Your task to perform on an android device: Go to Reddit.com Image 0: 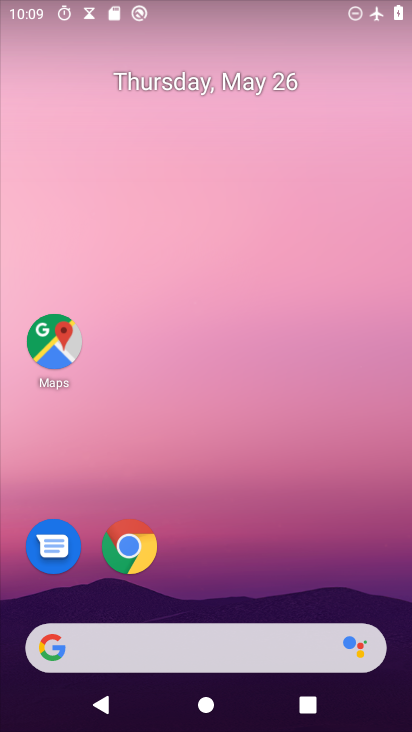
Step 0: drag from (348, 589) to (316, 123)
Your task to perform on an android device: Go to Reddit.com Image 1: 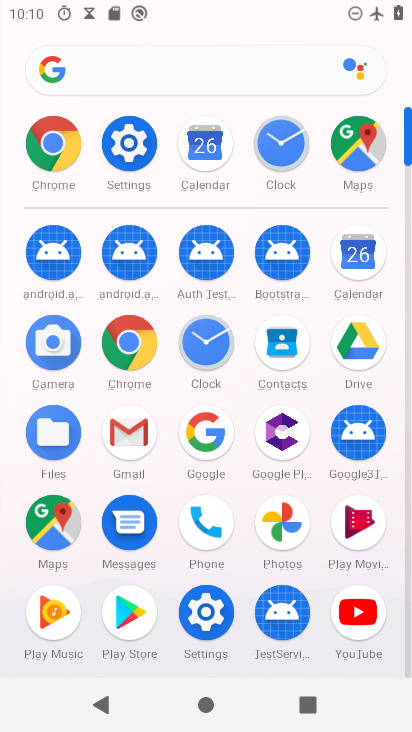
Step 1: click (122, 354)
Your task to perform on an android device: Go to Reddit.com Image 2: 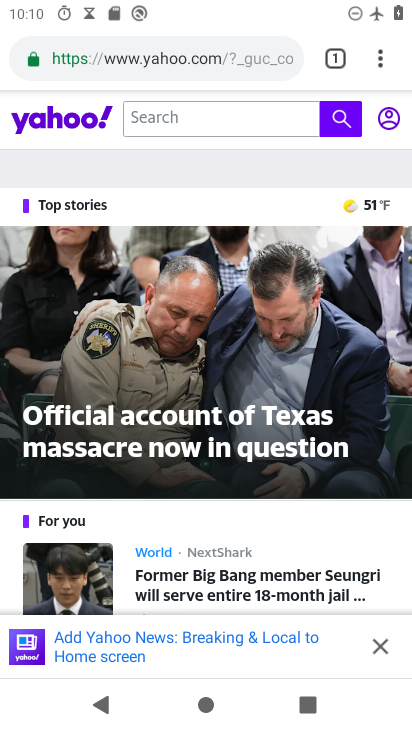
Step 2: click (163, 74)
Your task to perform on an android device: Go to Reddit.com Image 3: 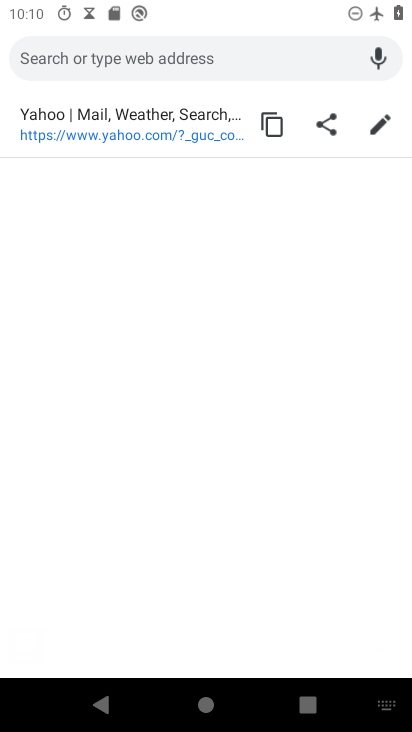
Step 3: type "reddit.com"
Your task to perform on an android device: Go to Reddit.com Image 4: 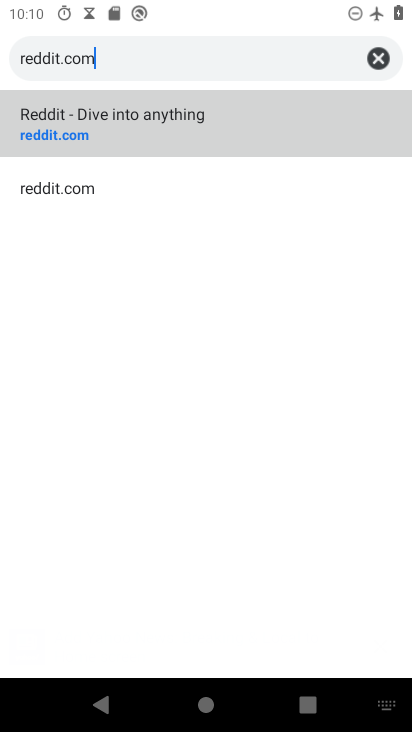
Step 4: click (152, 120)
Your task to perform on an android device: Go to Reddit.com Image 5: 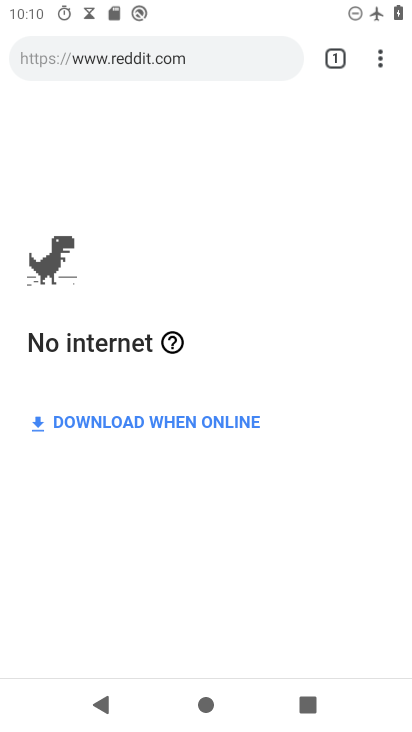
Step 5: task complete